Your task to perform on an android device: Open Youtube and go to "Your channel" Image 0: 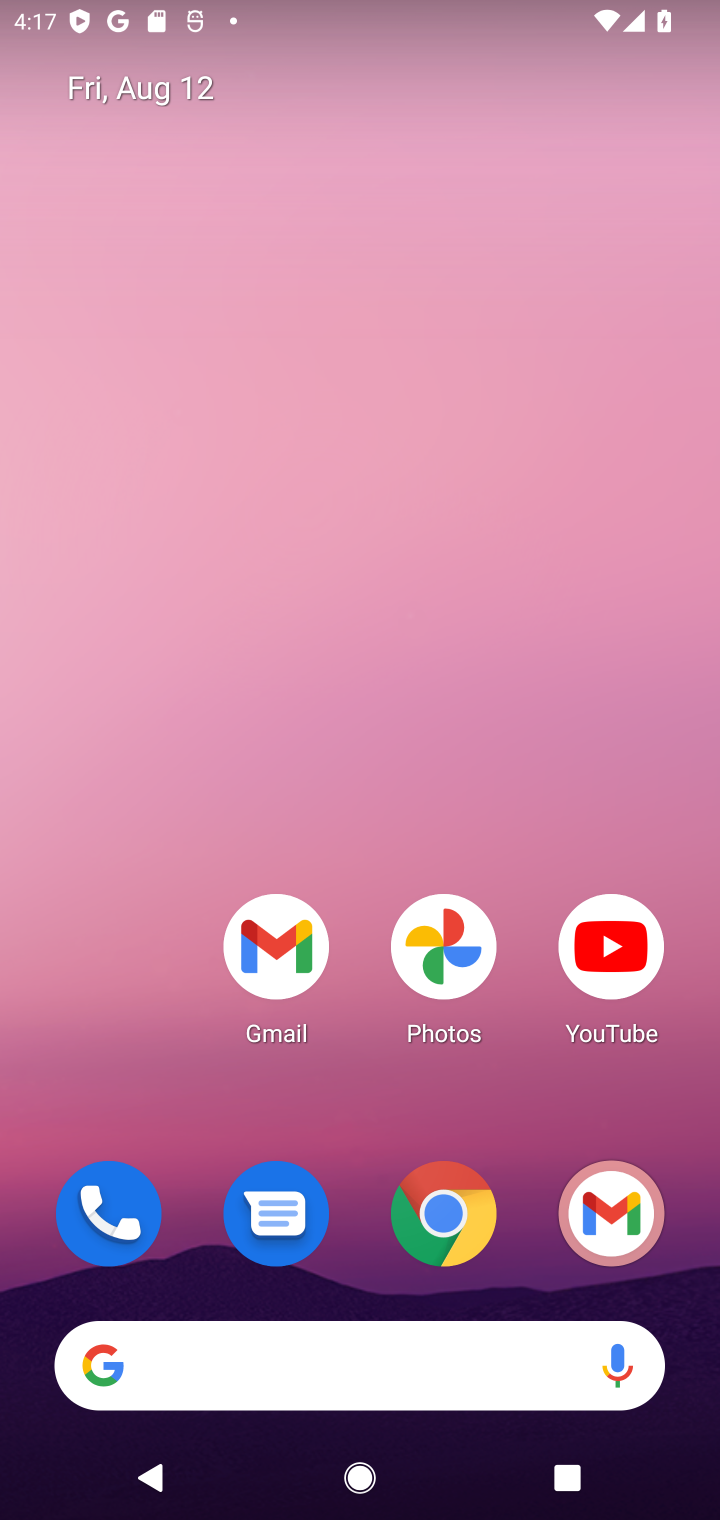
Step 0: drag from (344, 1095) to (373, 6)
Your task to perform on an android device: Open Youtube and go to "Your channel" Image 1: 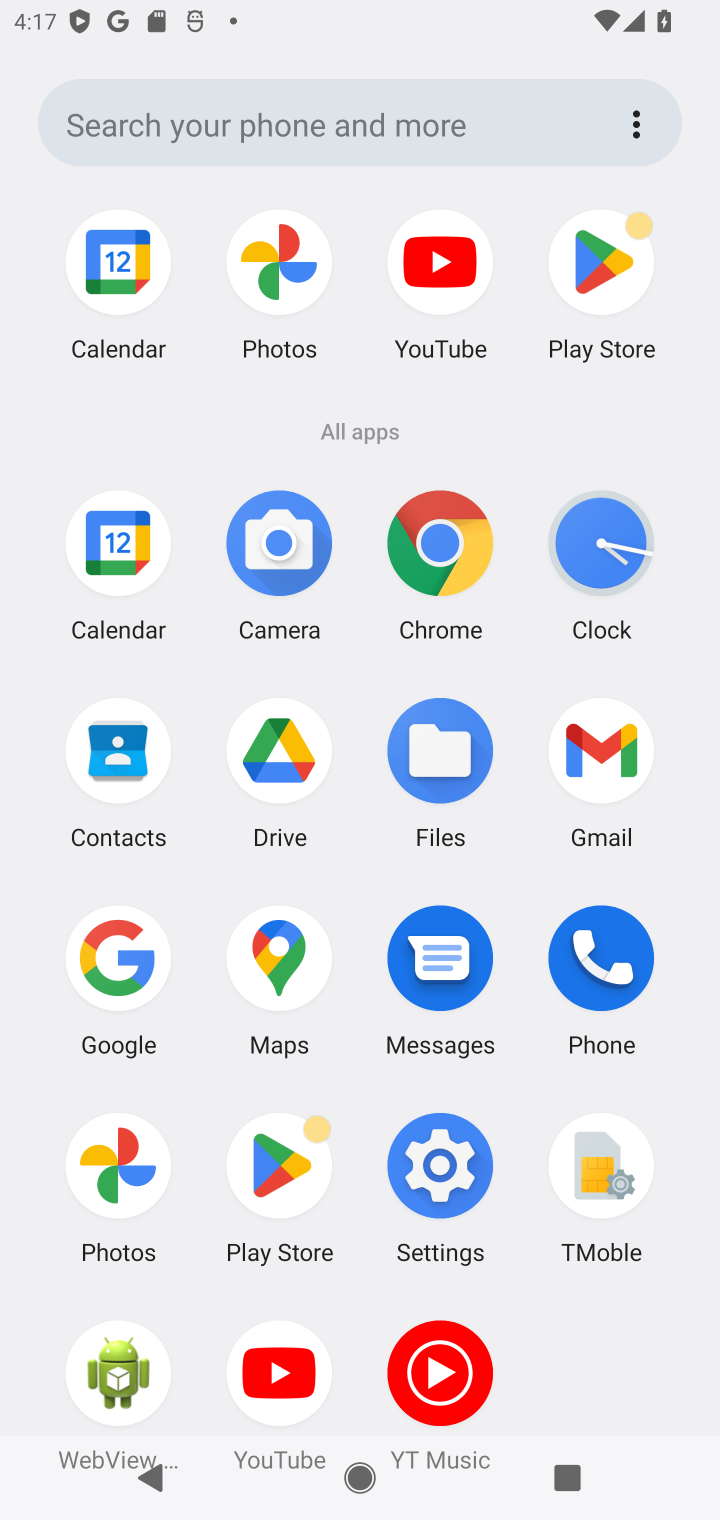
Step 1: click (284, 1359)
Your task to perform on an android device: Open Youtube and go to "Your channel" Image 2: 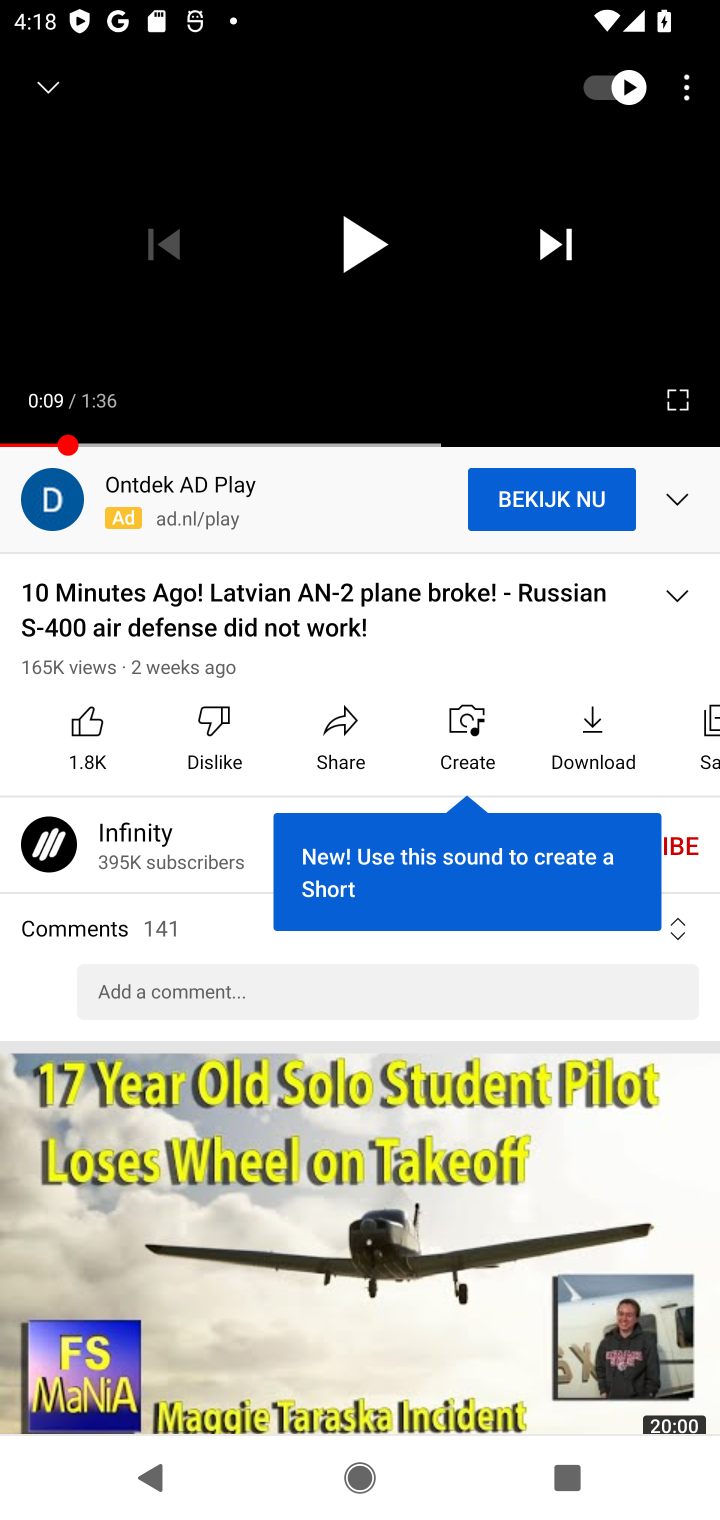
Step 2: press back button
Your task to perform on an android device: Open Youtube and go to "Your channel" Image 3: 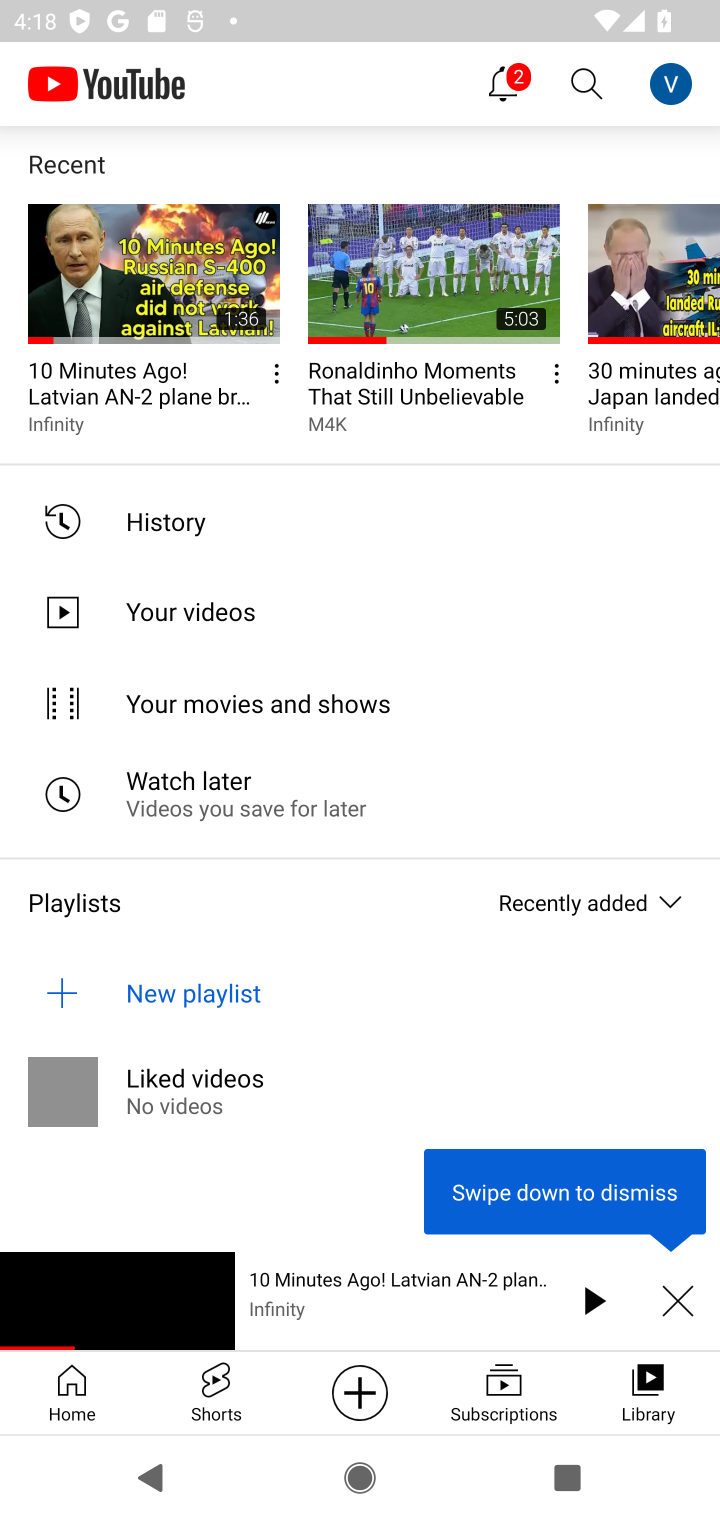
Step 3: click (679, 81)
Your task to perform on an android device: Open Youtube and go to "Your channel" Image 4: 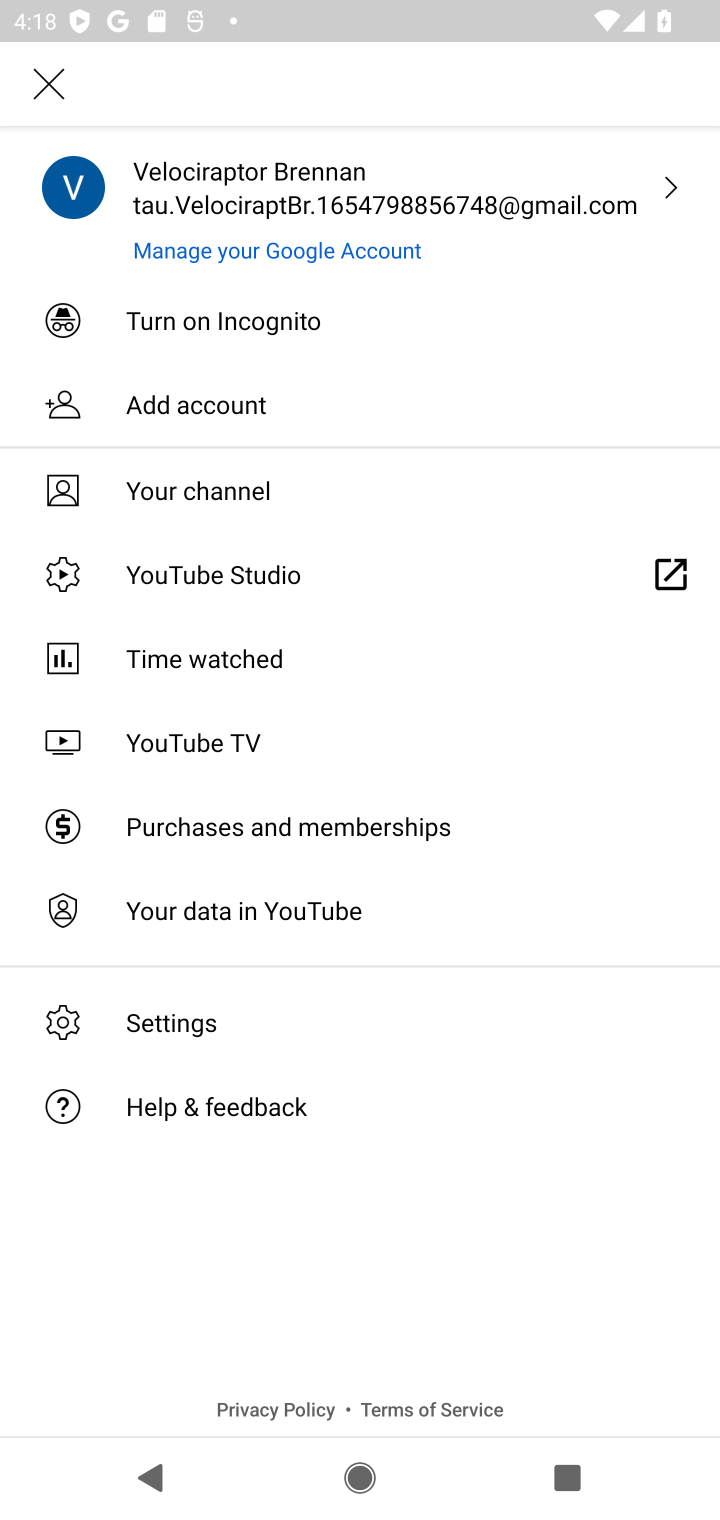
Step 4: click (232, 501)
Your task to perform on an android device: Open Youtube and go to "Your channel" Image 5: 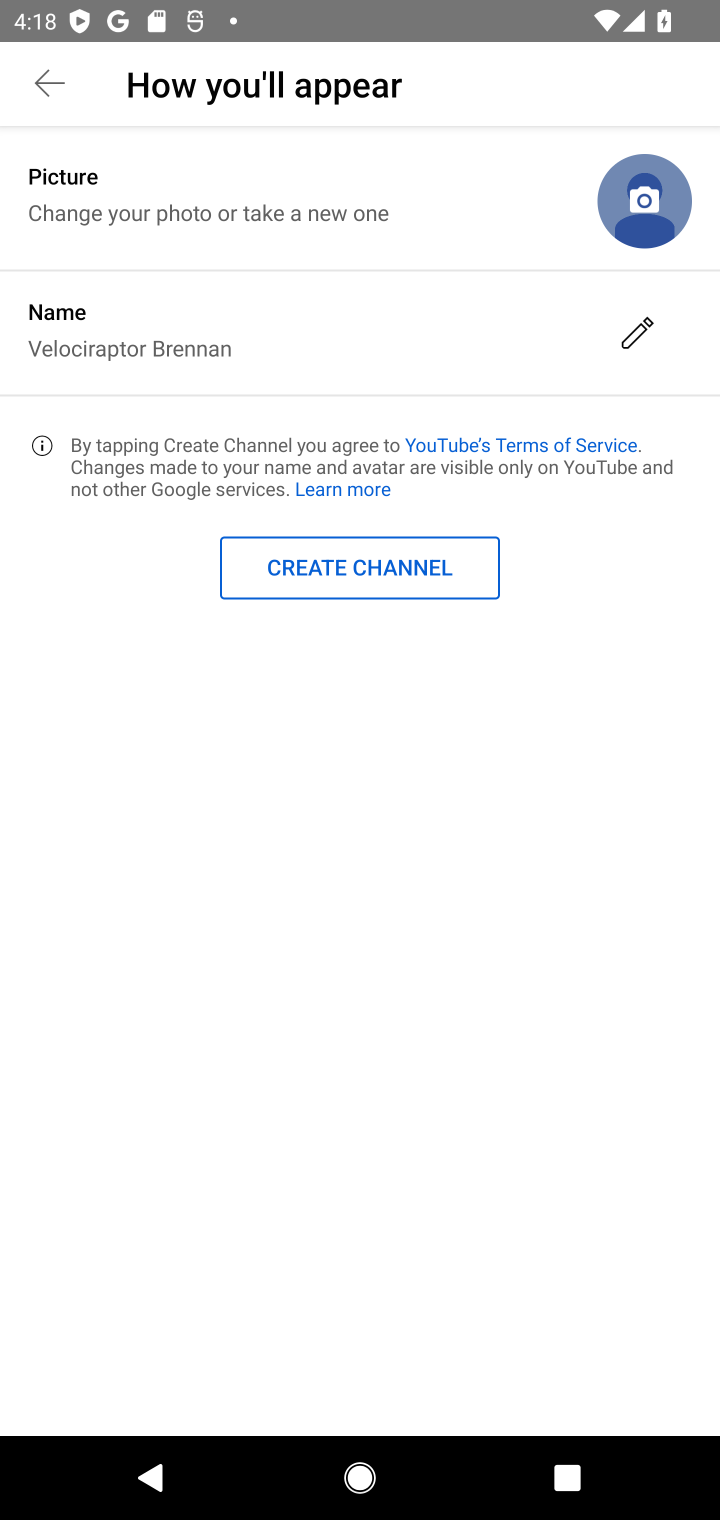
Step 5: task complete